Your task to perform on an android device: What's the weather today? Image 0: 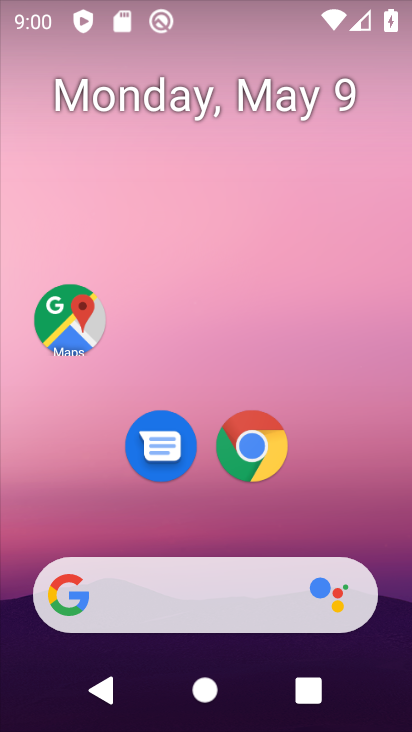
Step 0: drag from (337, 504) to (241, 144)
Your task to perform on an android device: What's the weather today? Image 1: 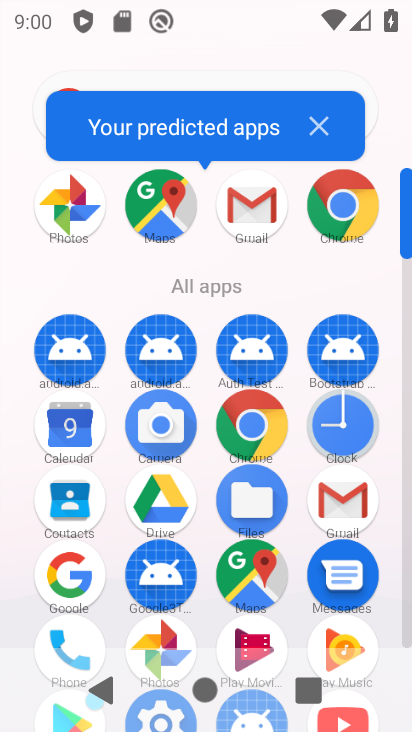
Step 1: click (84, 560)
Your task to perform on an android device: What's the weather today? Image 2: 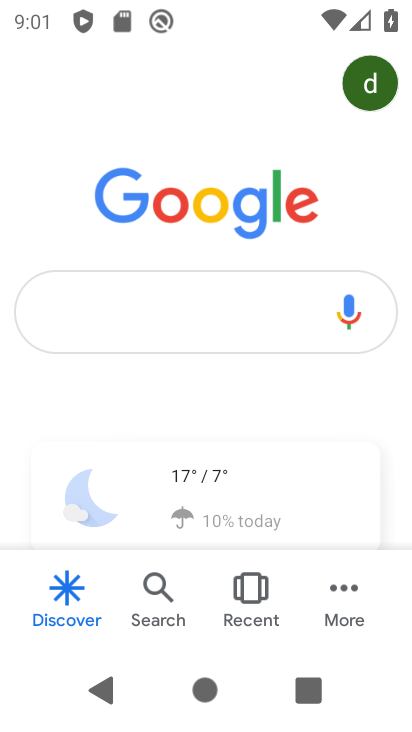
Step 2: click (96, 315)
Your task to perform on an android device: What's the weather today? Image 3: 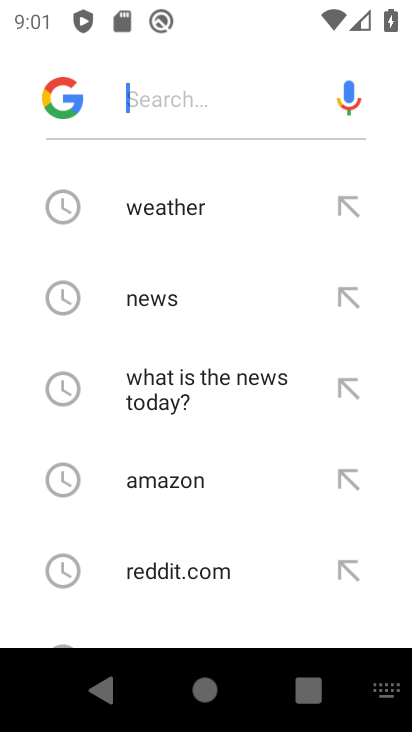
Step 3: click (150, 201)
Your task to perform on an android device: What's the weather today? Image 4: 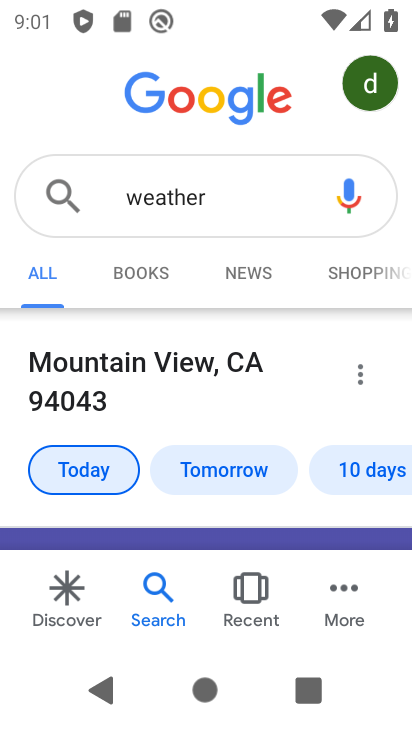
Step 4: task complete